Your task to perform on an android device: Open settings Image 0: 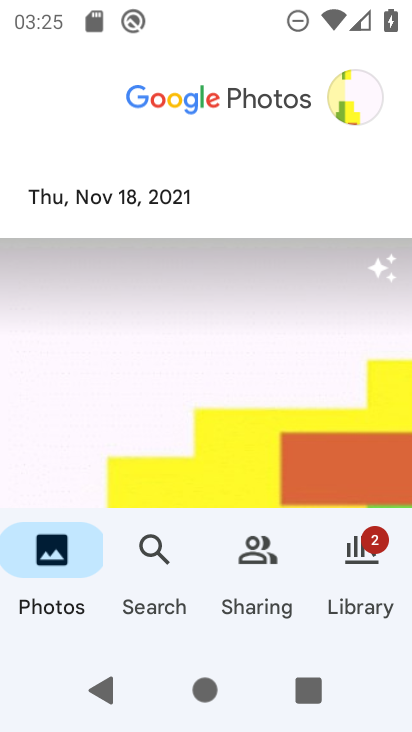
Step 0: press home button
Your task to perform on an android device: Open settings Image 1: 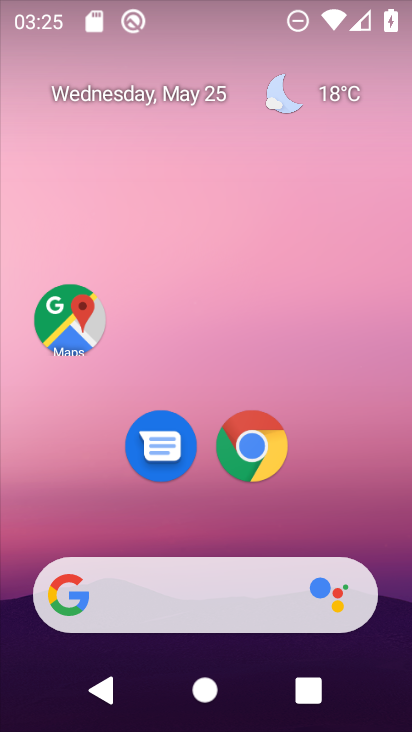
Step 1: drag from (148, 564) to (219, 106)
Your task to perform on an android device: Open settings Image 2: 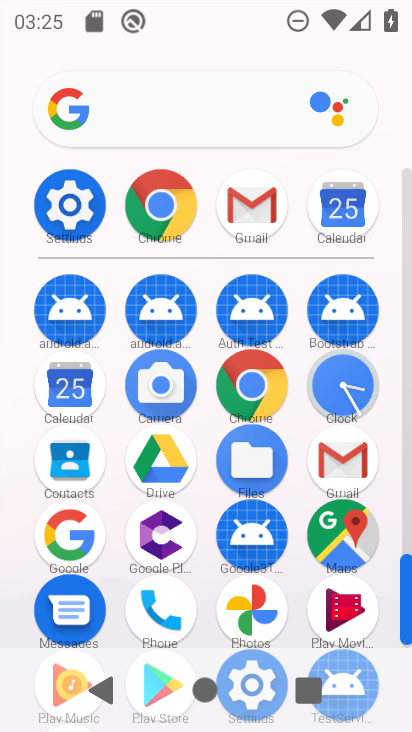
Step 2: click (80, 226)
Your task to perform on an android device: Open settings Image 3: 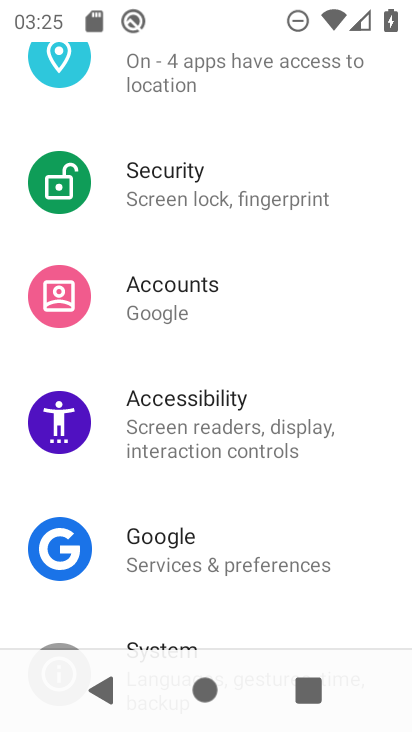
Step 3: task complete